Your task to perform on an android device: Open settings on Google Maps Image 0: 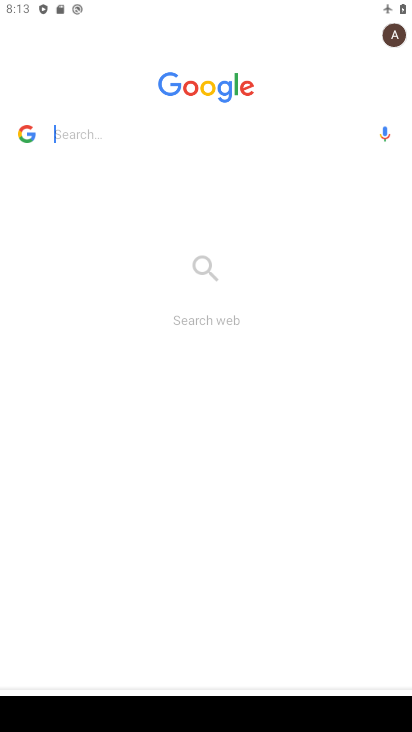
Step 0: press home button
Your task to perform on an android device: Open settings on Google Maps Image 1: 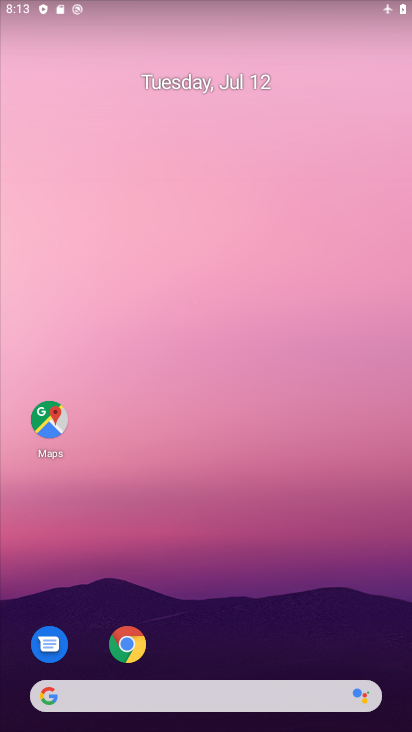
Step 1: click (37, 450)
Your task to perform on an android device: Open settings on Google Maps Image 2: 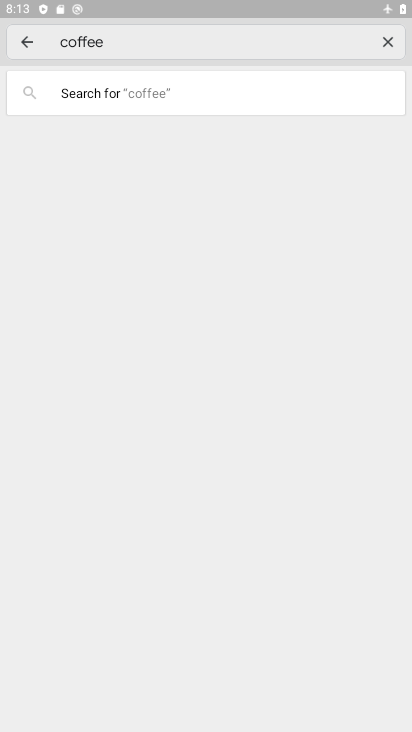
Step 2: click (19, 46)
Your task to perform on an android device: Open settings on Google Maps Image 3: 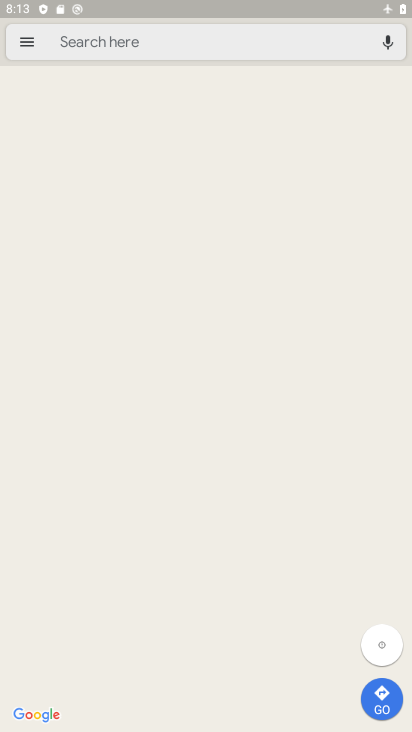
Step 3: click (19, 46)
Your task to perform on an android device: Open settings on Google Maps Image 4: 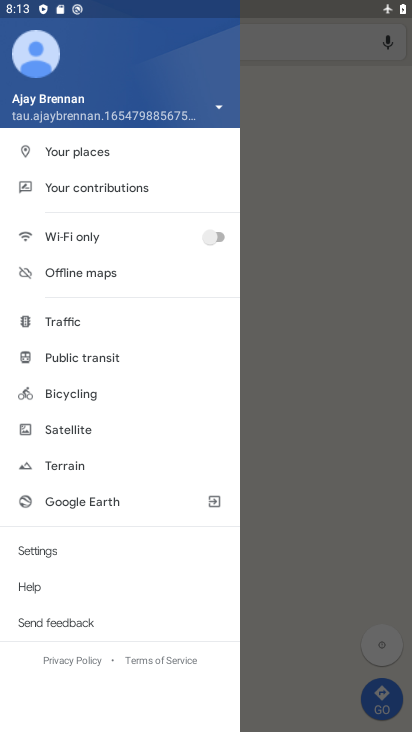
Step 4: click (42, 551)
Your task to perform on an android device: Open settings on Google Maps Image 5: 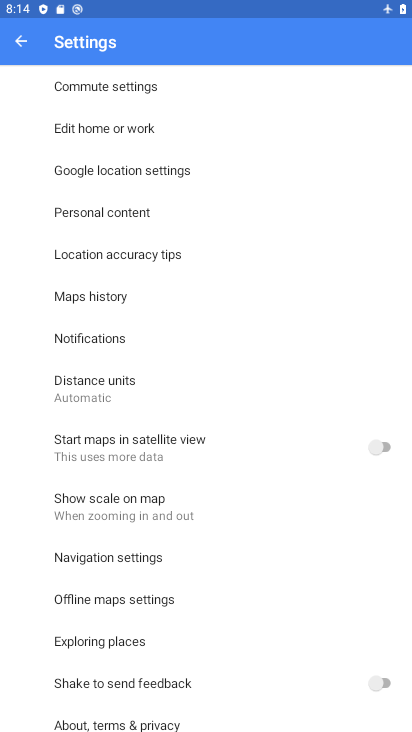
Step 5: task complete